Your task to perform on an android device: turn pop-ups on in chrome Image 0: 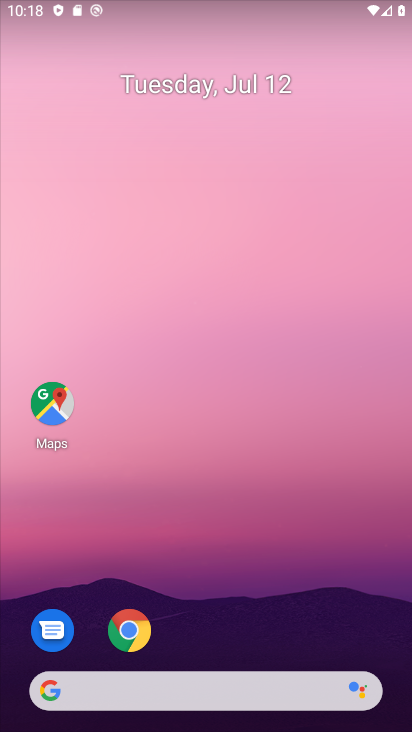
Step 0: drag from (350, 630) to (351, 192)
Your task to perform on an android device: turn pop-ups on in chrome Image 1: 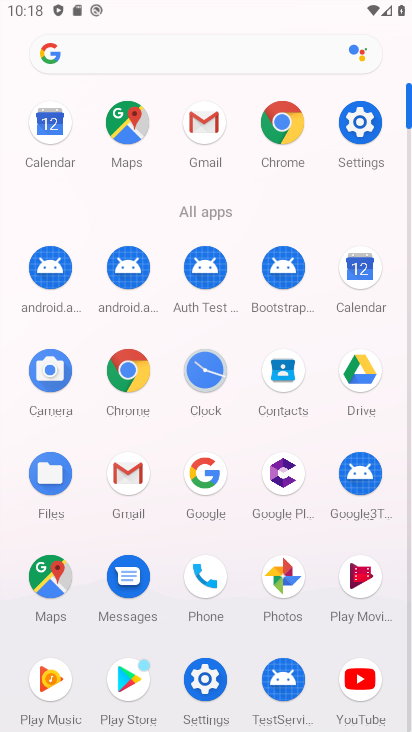
Step 1: click (126, 368)
Your task to perform on an android device: turn pop-ups on in chrome Image 2: 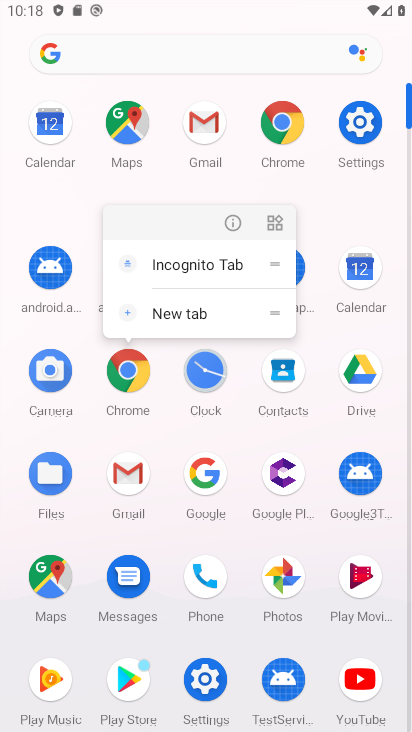
Step 2: click (126, 368)
Your task to perform on an android device: turn pop-ups on in chrome Image 3: 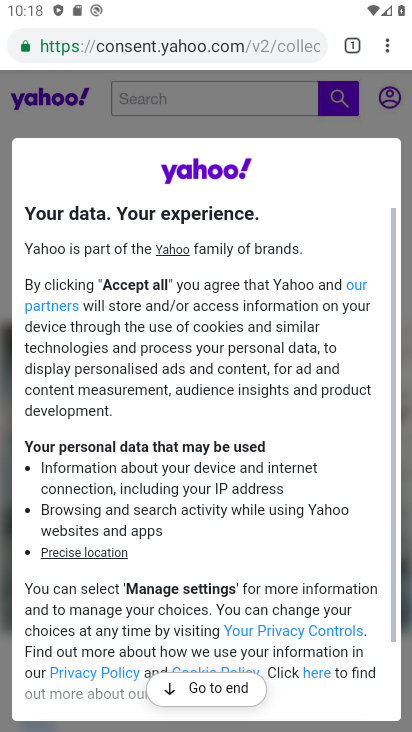
Step 3: click (385, 51)
Your task to perform on an android device: turn pop-ups on in chrome Image 4: 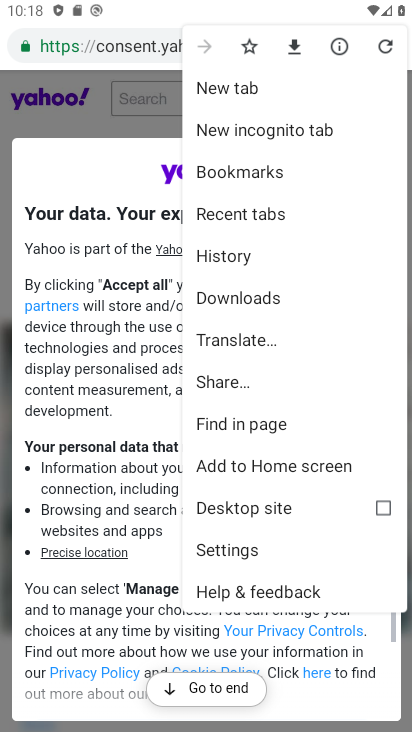
Step 4: click (270, 555)
Your task to perform on an android device: turn pop-ups on in chrome Image 5: 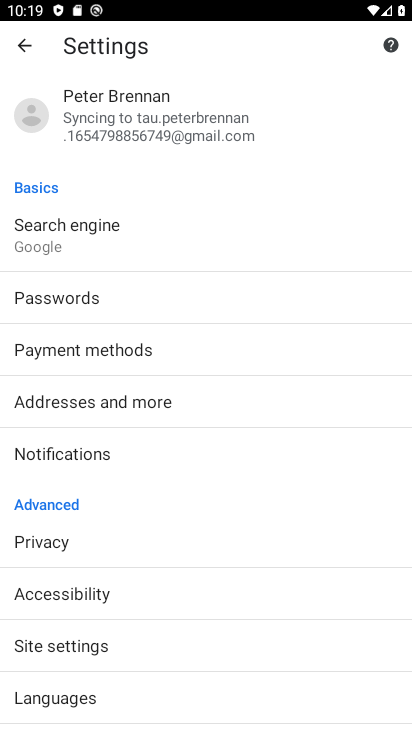
Step 5: drag from (270, 555) to (278, 416)
Your task to perform on an android device: turn pop-ups on in chrome Image 6: 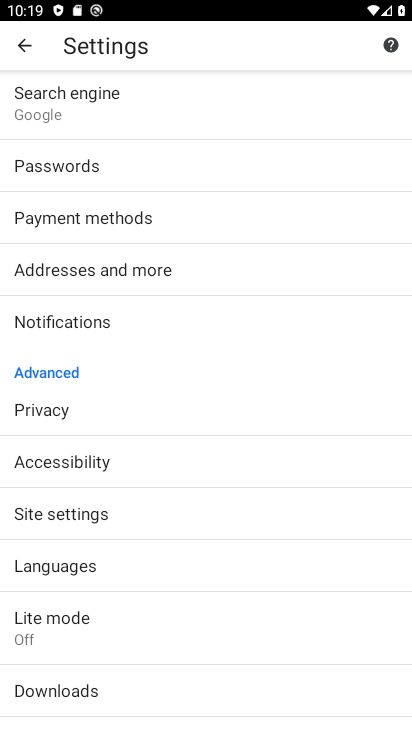
Step 6: drag from (239, 597) to (267, 392)
Your task to perform on an android device: turn pop-ups on in chrome Image 7: 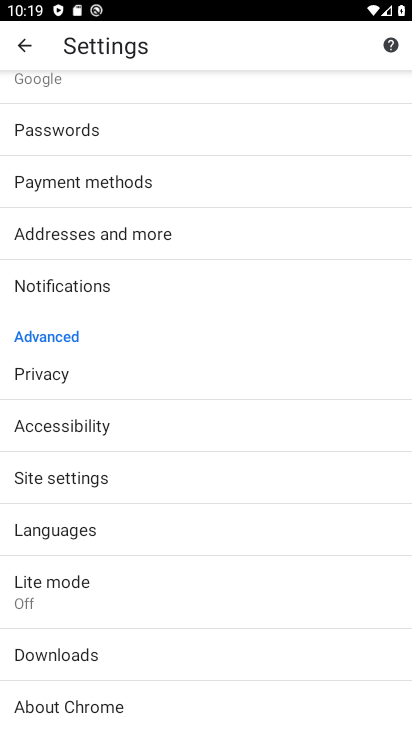
Step 7: drag from (249, 541) to (251, 412)
Your task to perform on an android device: turn pop-ups on in chrome Image 8: 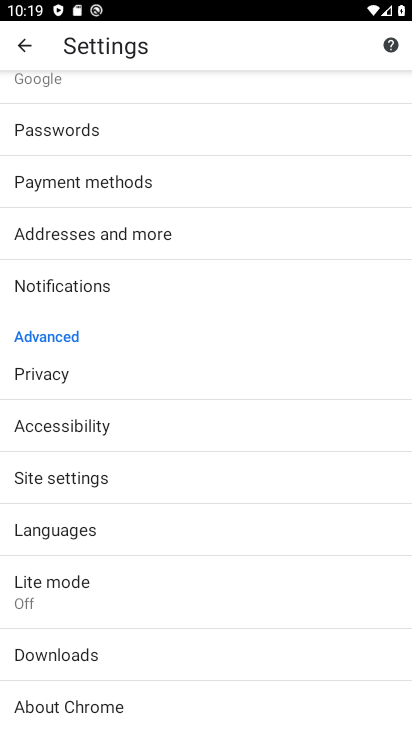
Step 8: click (182, 473)
Your task to perform on an android device: turn pop-ups on in chrome Image 9: 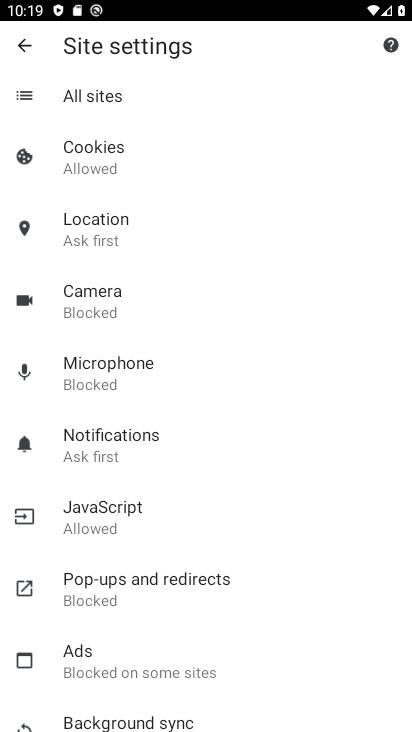
Step 9: drag from (307, 274) to (309, 480)
Your task to perform on an android device: turn pop-ups on in chrome Image 10: 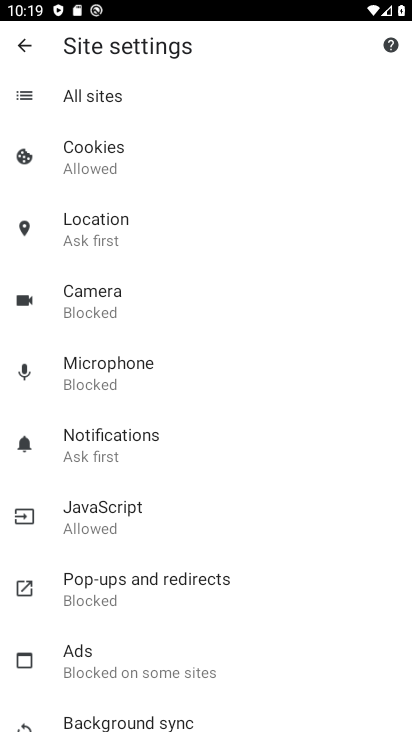
Step 10: drag from (318, 526) to (349, 343)
Your task to perform on an android device: turn pop-ups on in chrome Image 11: 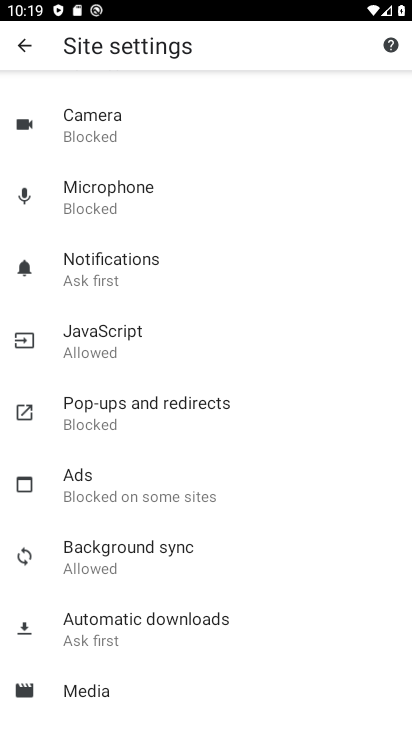
Step 11: click (224, 425)
Your task to perform on an android device: turn pop-ups on in chrome Image 12: 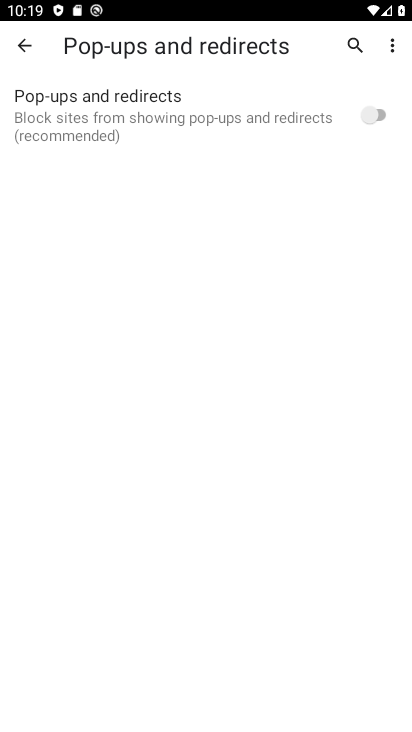
Step 12: click (360, 109)
Your task to perform on an android device: turn pop-ups on in chrome Image 13: 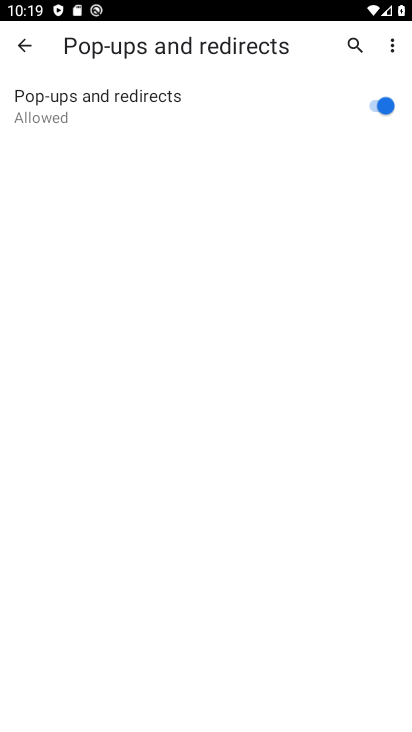
Step 13: task complete